Your task to perform on an android device: search for starred emails in the gmail app Image 0: 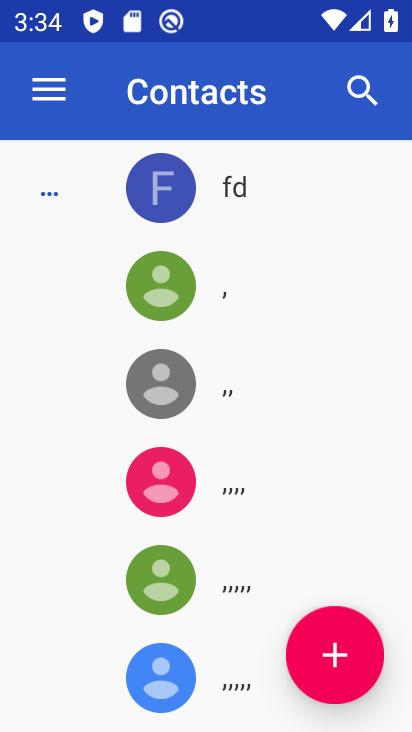
Step 0: press home button
Your task to perform on an android device: search for starred emails in the gmail app Image 1: 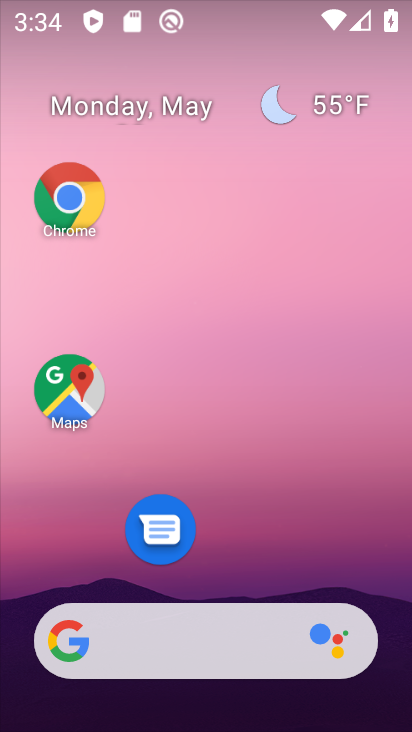
Step 1: drag from (166, 464) to (169, 70)
Your task to perform on an android device: search for starred emails in the gmail app Image 2: 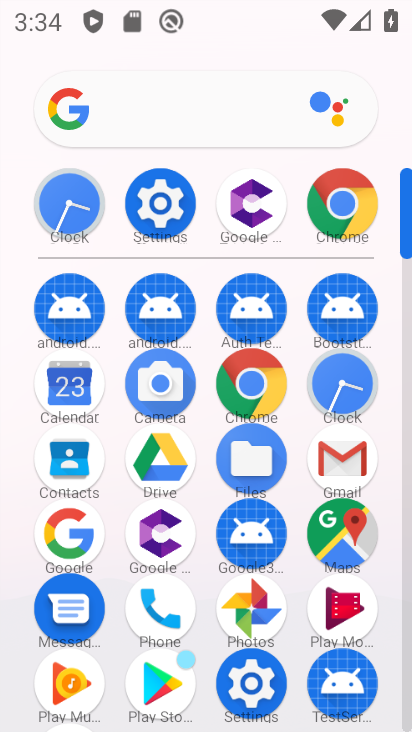
Step 2: click (348, 473)
Your task to perform on an android device: search for starred emails in the gmail app Image 3: 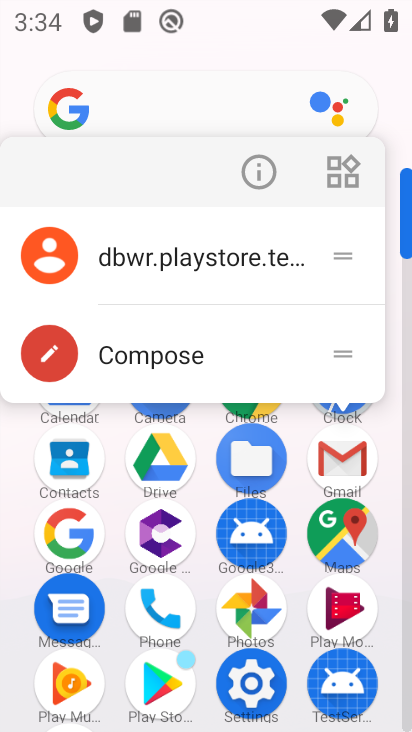
Step 3: click (354, 448)
Your task to perform on an android device: search for starred emails in the gmail app Image 4: 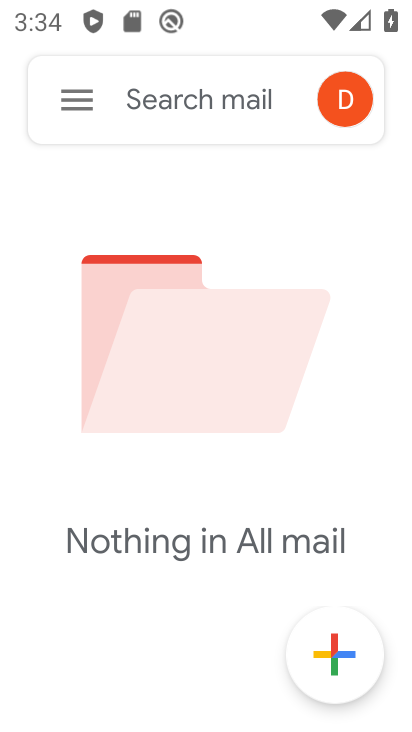
Step 4: click (77, 106)
Your task to perform on an android device: search for starred emails in the gmail app Image 5: 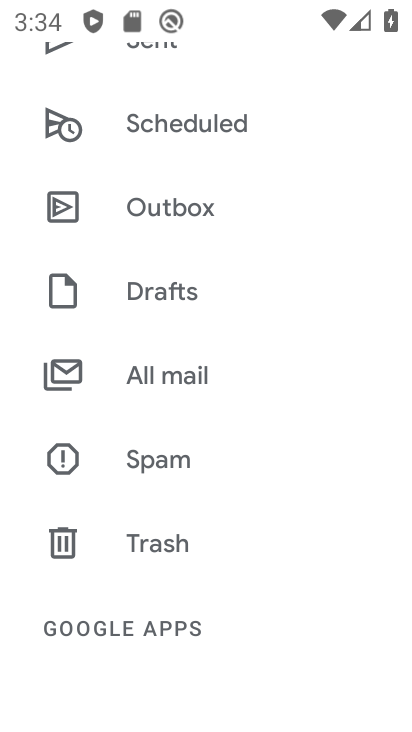
Step 5: drag from (99, 205) to (112, 612)
Your task to perform on an android device: search for starred emails in the gmail app Image 6: 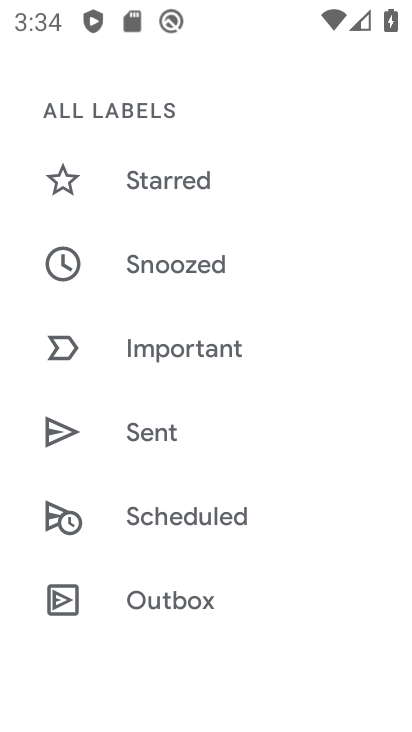
Step 6: click (172, 198)
Your task to perform on an android device: search for starred emails in the gmail app Image 7: 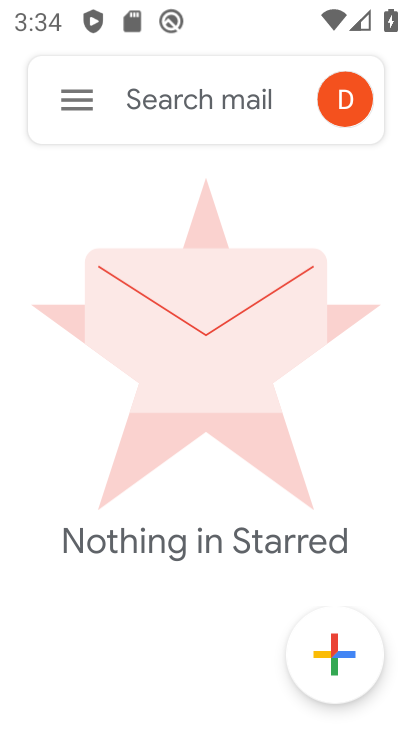
Step 7: task complete